Your task to perform on an android device: Open Google Image 0: 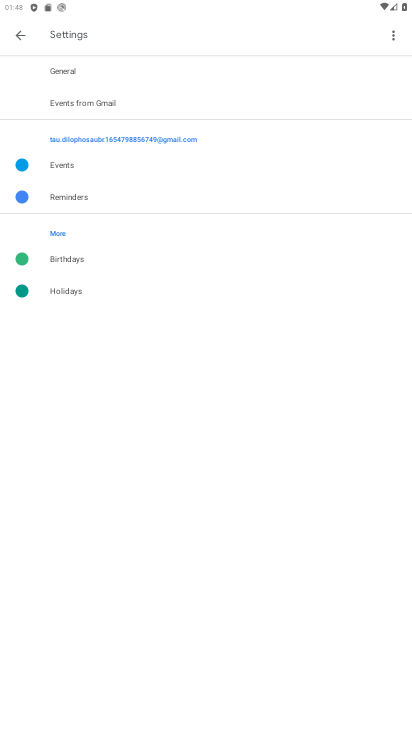
Step 0: press home button
Your task to perform on an android device: Open Google Image 1: 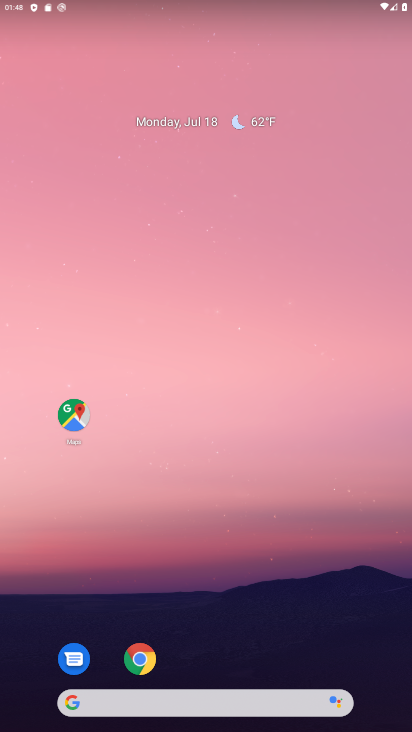
Step 1: drag from (250, 557) to (231, 71)
Your task to perform on an android device: Open Google Image 2: 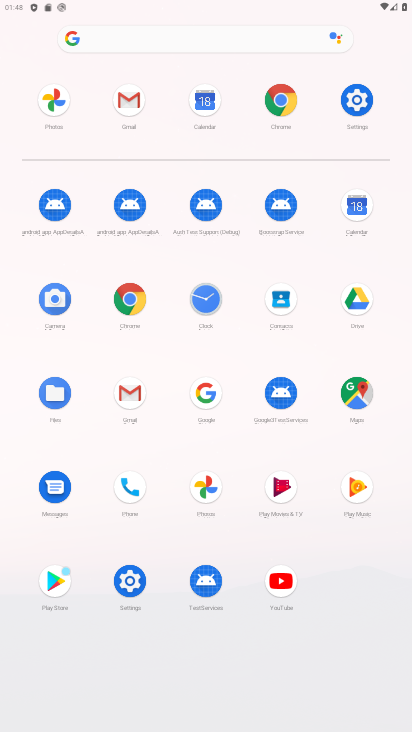
Step 2: click (203, 392)
Your task to perform on an android device: Open Google Image 3: 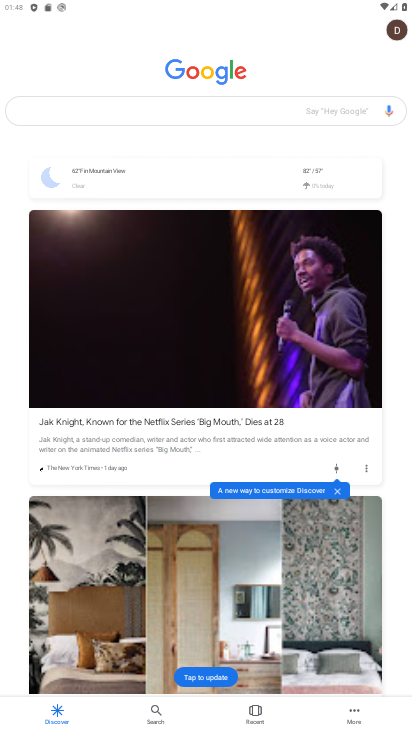
Step 3: task complete